Your task to perform on an android device: check the backup settings in the google photos Image 0: 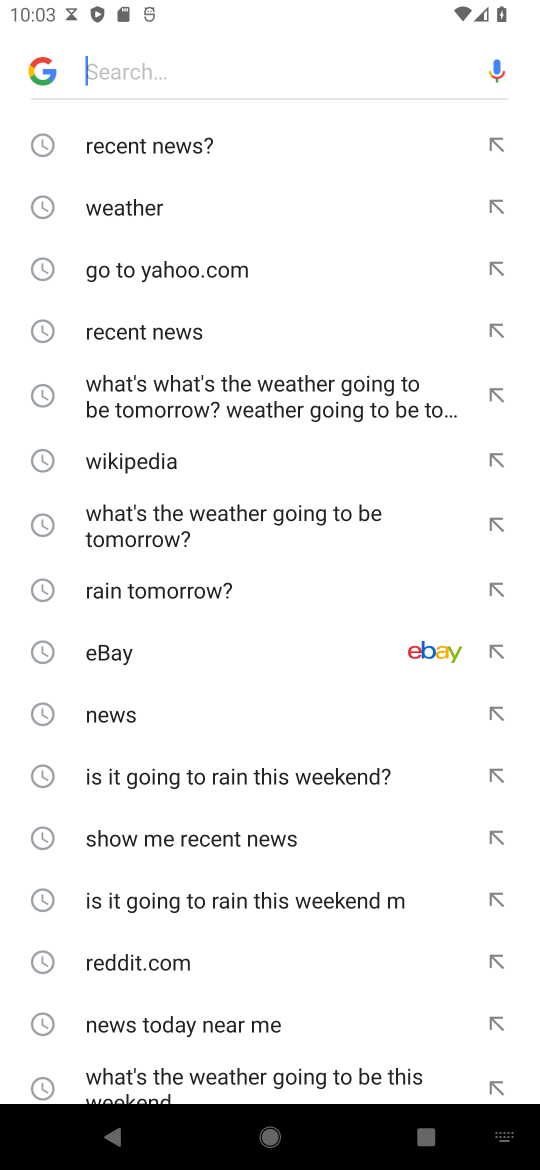
Step 0: press home button
Your task to perform on an android device: check the backup settings in the google photos Image 1: 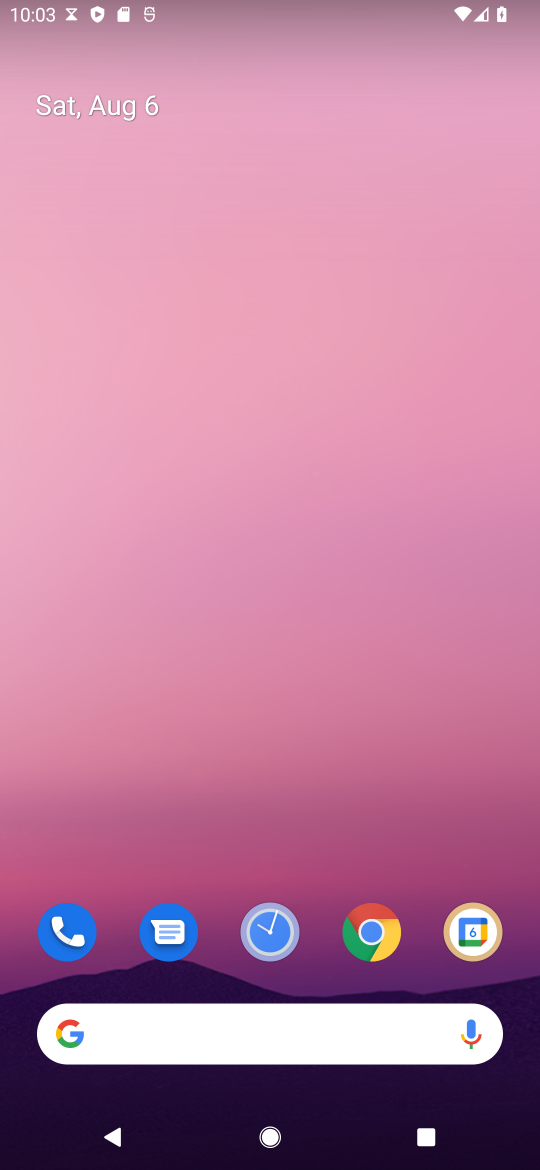
Step 1: drag from (200, 1036) to (265, 415)
Your task to perform on an android device: check the backup settings in the google photos Image 2: 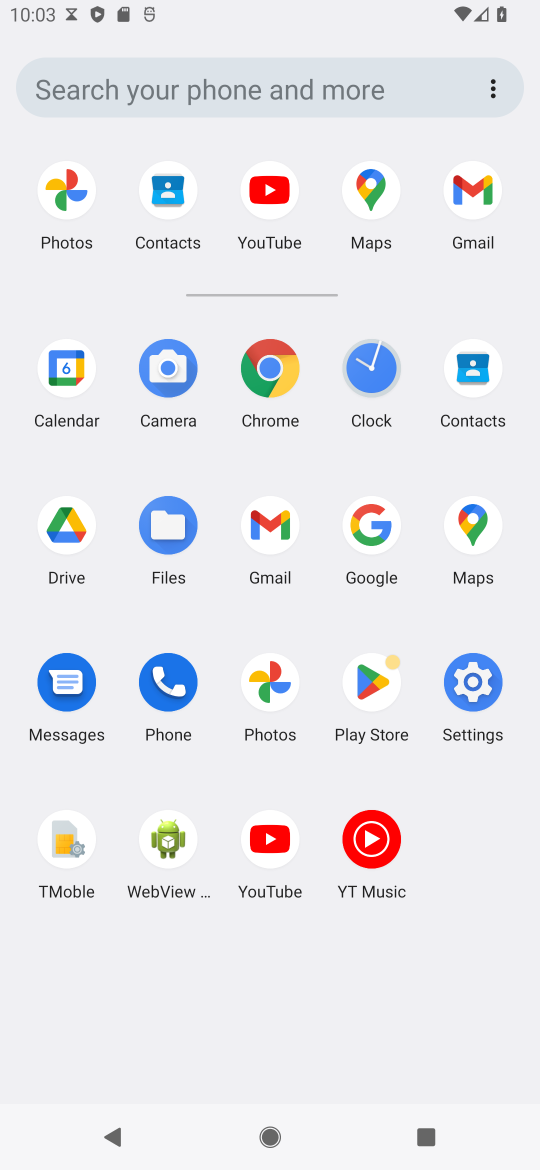
Step 2: click (67, 193)
Your task to perform on an android device: check the backup settings in the google photos Image 3: 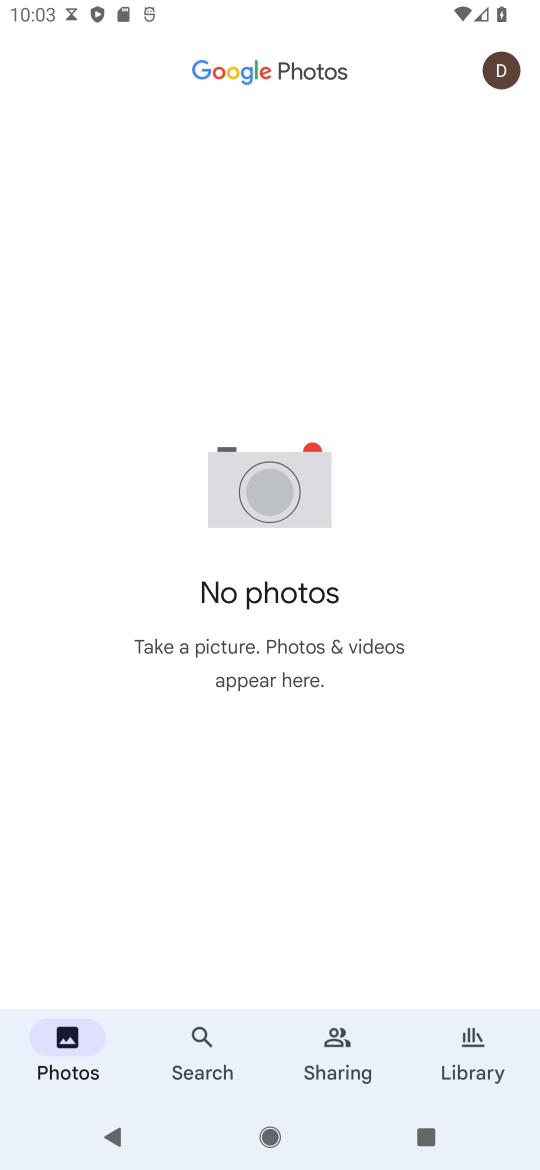
Step 3: click (499, 72)
Your task to perform on an android device: check the backup settings in the google photos Image 4: 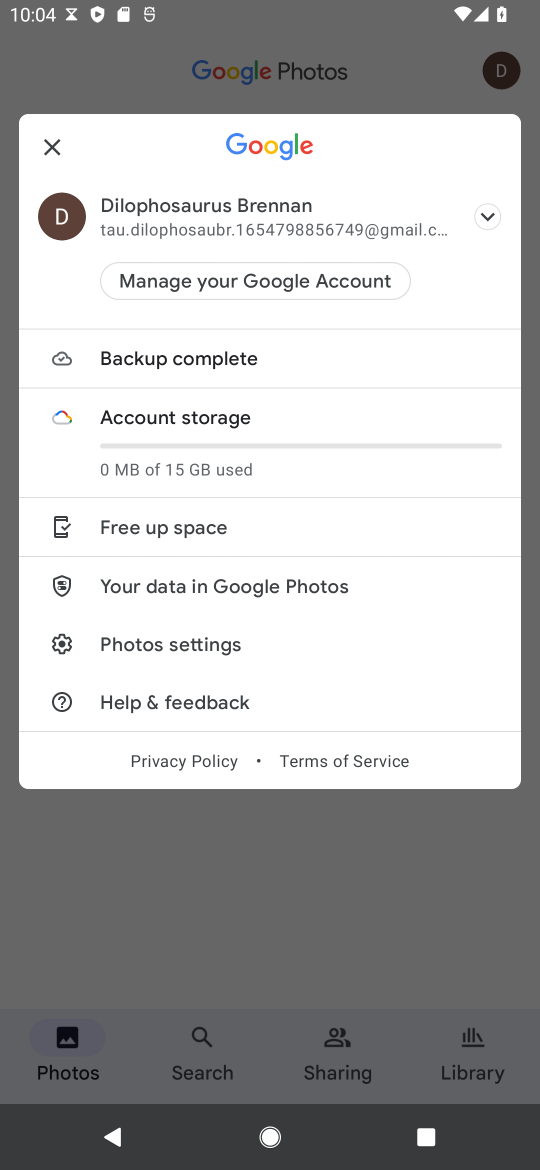
Step 4: click (181, 643)
Your task to perform on an android device: check the backup settings in the google photos Image 5: 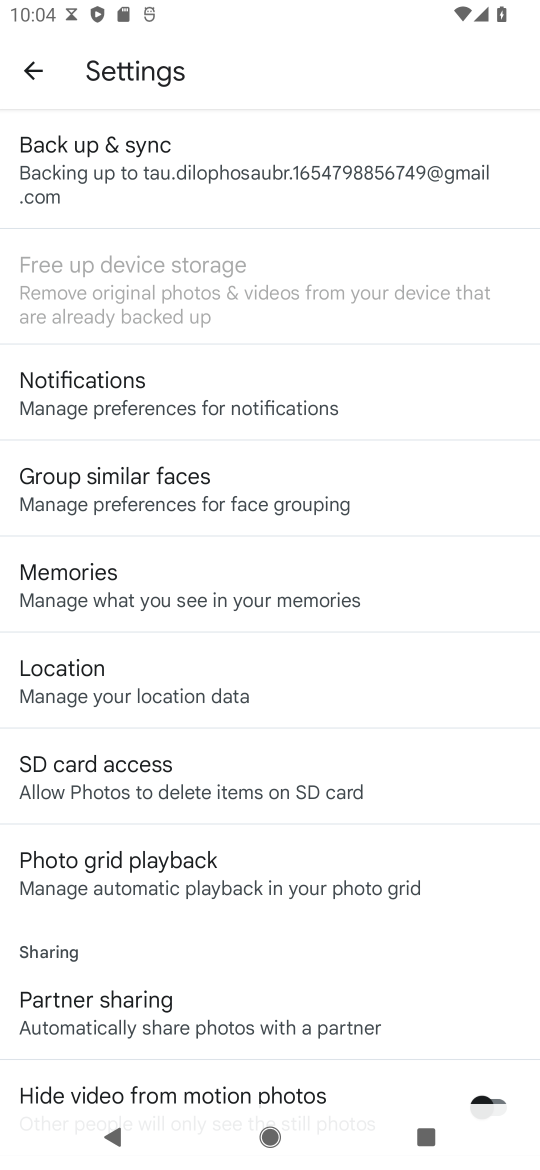
Step 5: click (188, 166)
Your task to perform on an android device: check the backup settings in the google photos Image 6: 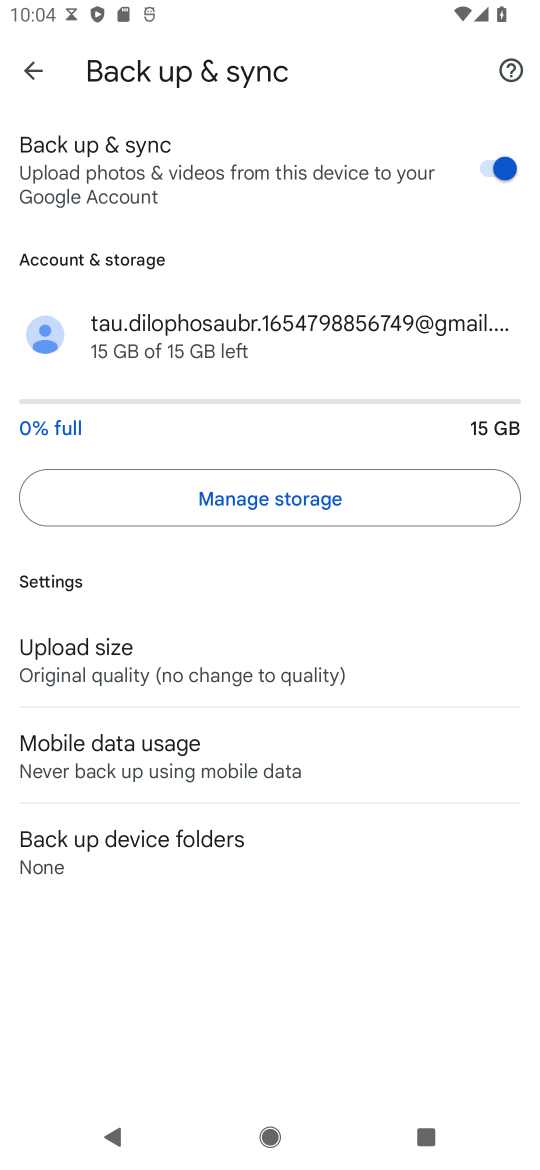
Step 6: task complete